Your task to perform on an android device: manage bookmarks in the chrome app Image 0: 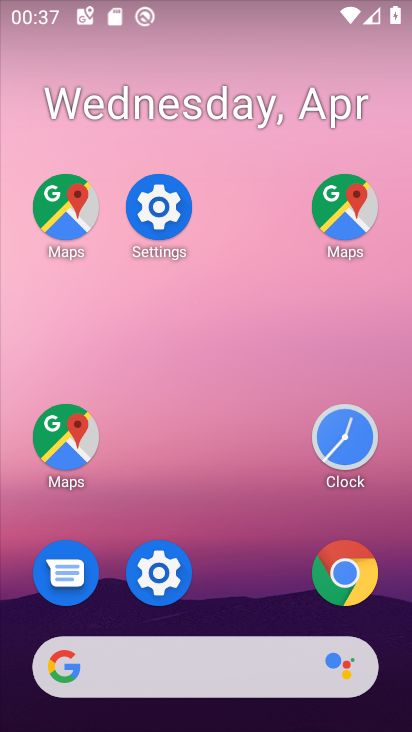
Step 0: click (338, 575)
Your task to perform on an android device: manage bookmarks in the chrome app Image 1: 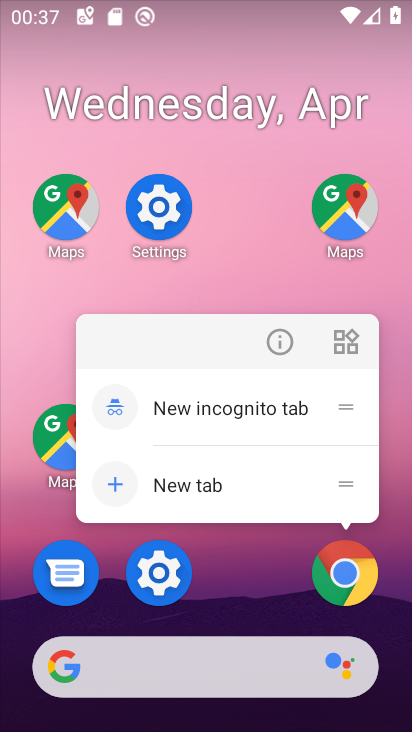
Step 1: click (338, 575)
Your task to perform on an android device: manage bookmarks in the chrome app Image 2: 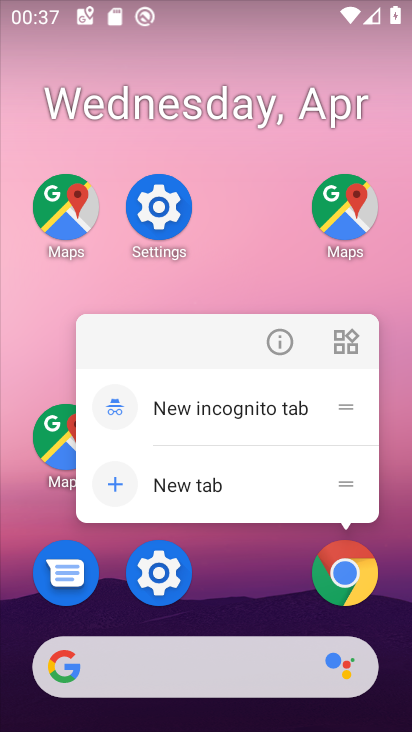
Step 2: click (342, 582)
Your task to perform on an android device: manage bookmarks in the chrome app Image 3: 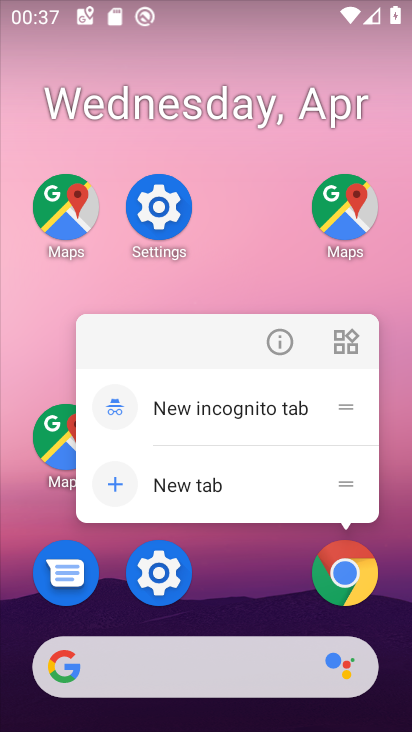
Step 3: click (357, 604)
Your task to perform on an android device: manage bookmarks in the chrome app Image 4: 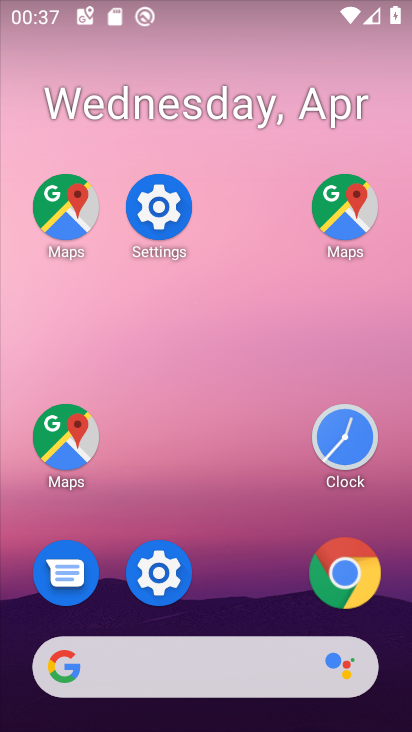
Step 4: click (352, 554)
Your task to perform on an android device: manage bookmarks in the chrome app Image 5: 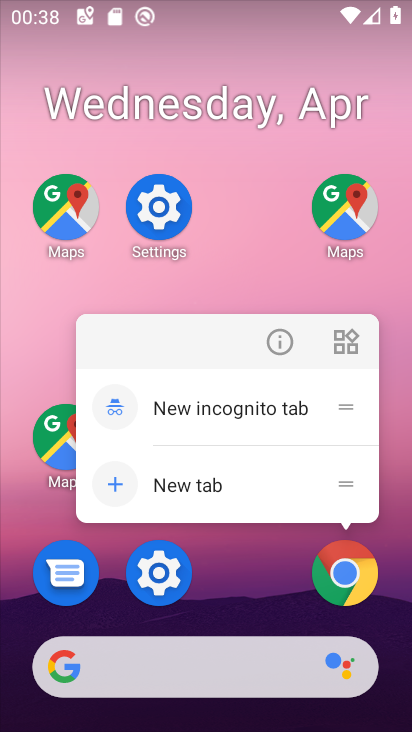
Step 5: click (352, 572)
Your task to perform on an android device: manage bookmarks in the chrome app Image 6: 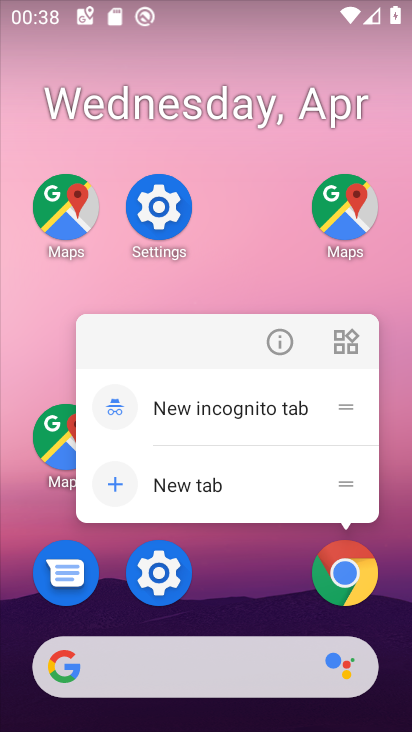
Step 6: click (352, 572)
Your task to perform on an android device: manage bookmarks in the chrome app Image 7: 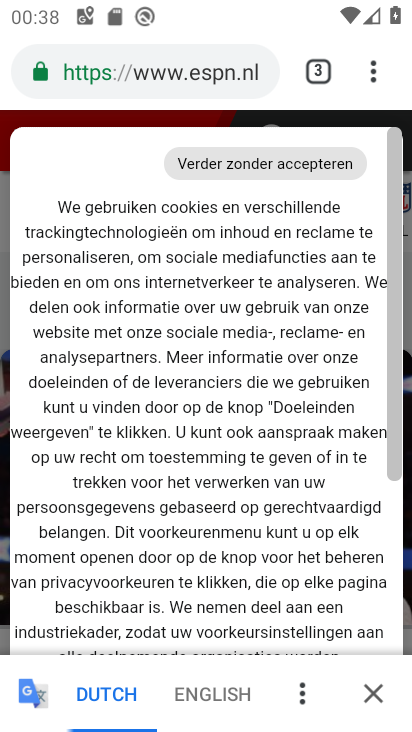
Step 7: drag from (232, 418) to (268, 242)
Your task to perform on an android device: manage bookmarks in the chrome app Image 8: 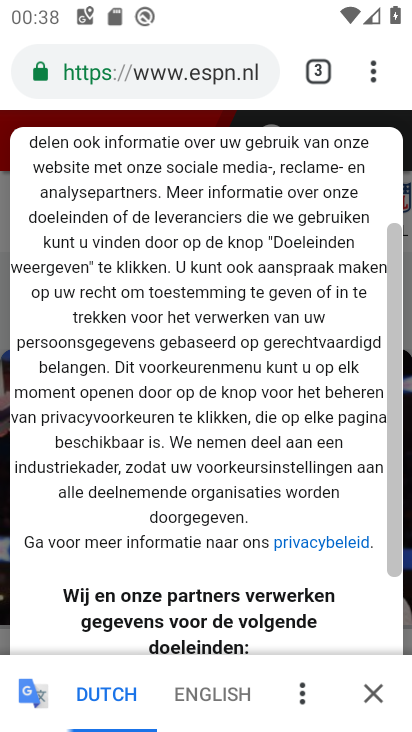
Step 8: drag from (367, 64) to (119, 364)
Your task to perform on an android device: manage bookmarks in the chrome app Image 9: 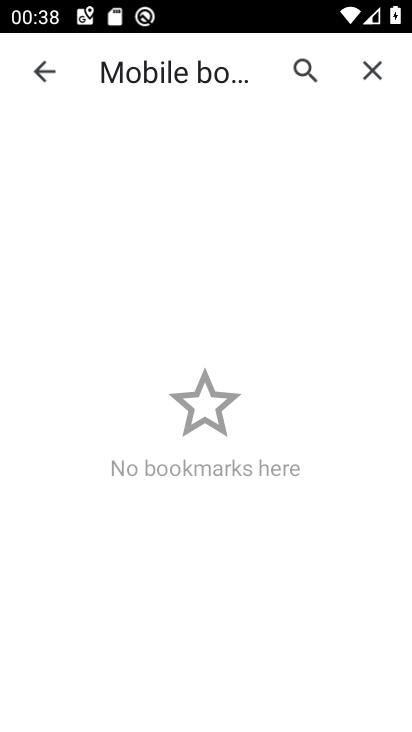
Step 9: click (45, 64)
Your task to perform on an android device: manage bookmarks in the chrome app Image 10: 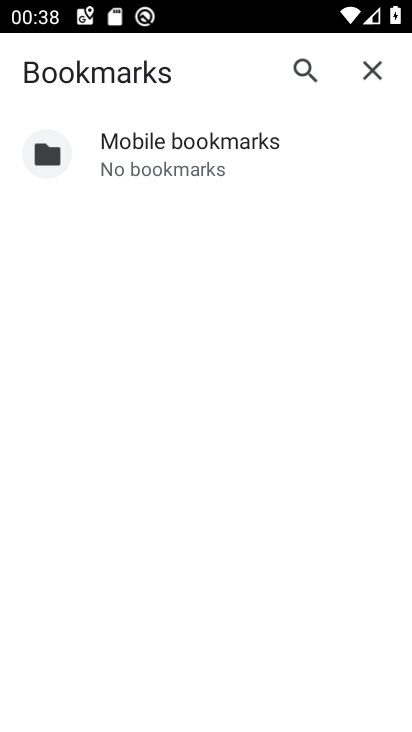
Step 10: click (365, 61)
Your task to perform on an android device: manage bookmarks in the chrome app Image 11: 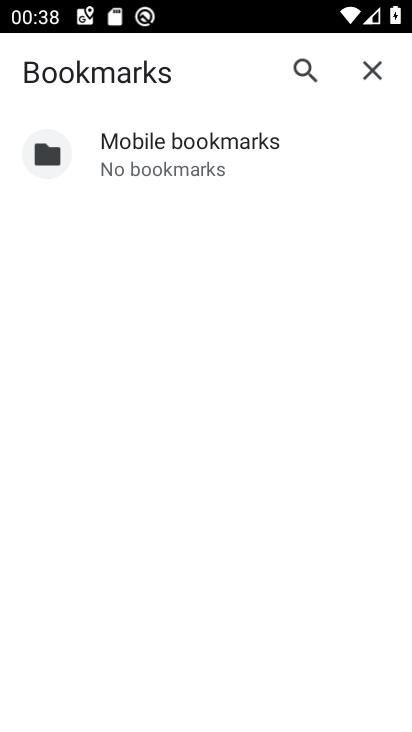
Step 11: click (210, 127)
Your task to perform on an android device: manage bookmarks in the chrome app Image 12: 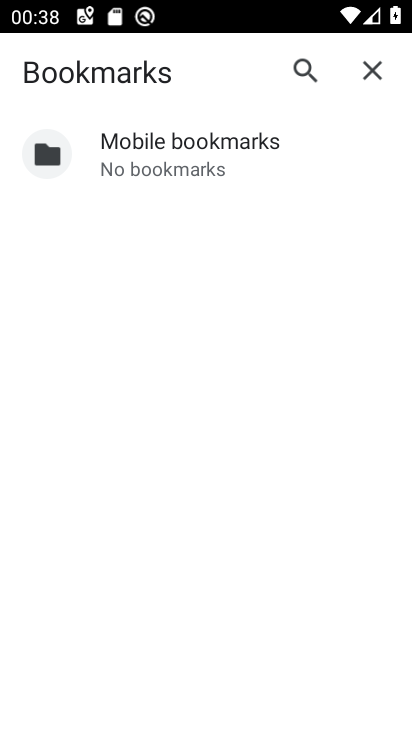
Step 12: task complete